Your task to perform on an android device: Go to Yahoo.com Image 0: 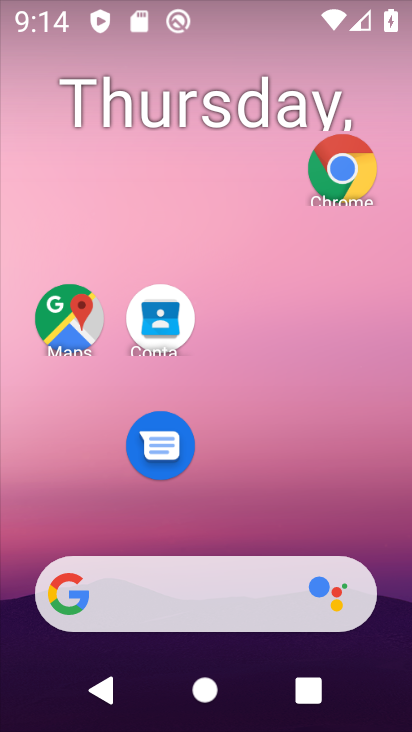
Step 0: drag from (257, 635) to (210, 148)
Your task to perform on an android device: Go to Yahoo.com Image 1: 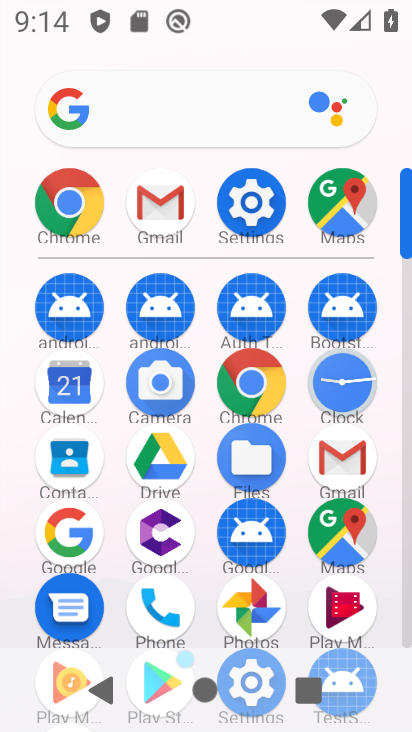
Step 1: click (62, 210)
Your task to perform on an android device: Go to Yahoo.com Image 2: 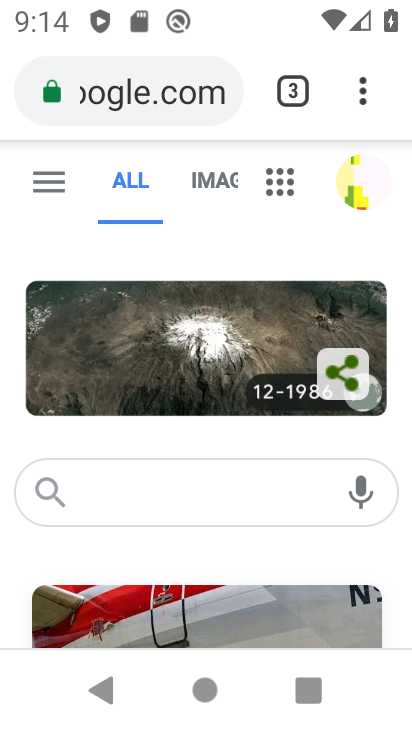
Step 2: click (154, 94)
Your task to perform on an android device: Go to Yahoo.com Image 3: 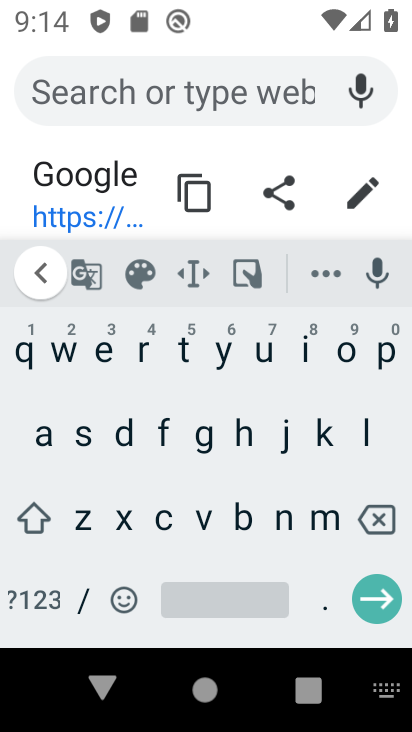
Step 3: click (220, 360)
Your task to perform on an android device: Go to Yahoo.com Image 4: 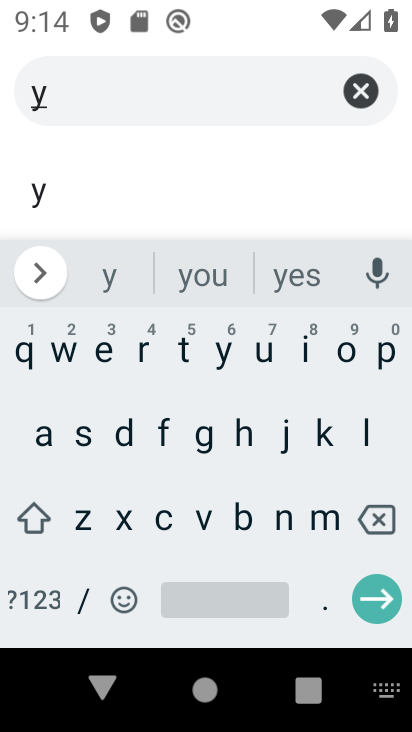
Step 4: click (47, 434)
Your task to perform on an android device: Go to Yahoo.com Image 5: 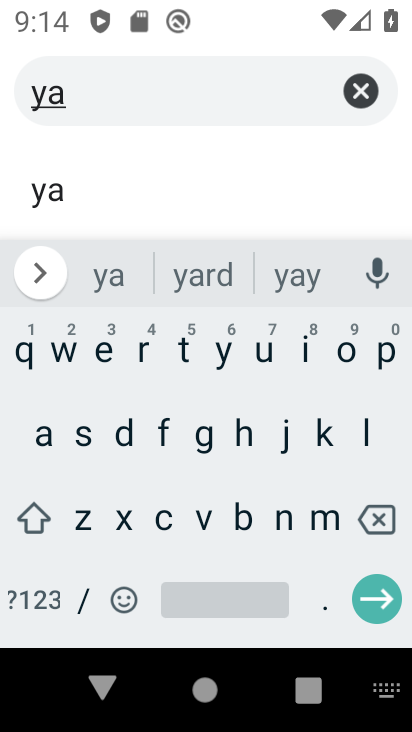
Step 5: click (244, 431)
Your task to perform on an android device: Go to Yahoo.com Image 6: 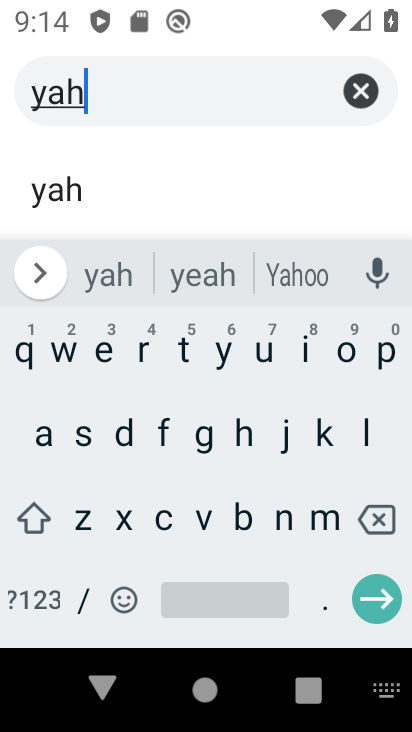
Step 6: click (344, 360)
Your task to perform on an android device: Go to Yahoo.com Image 7: 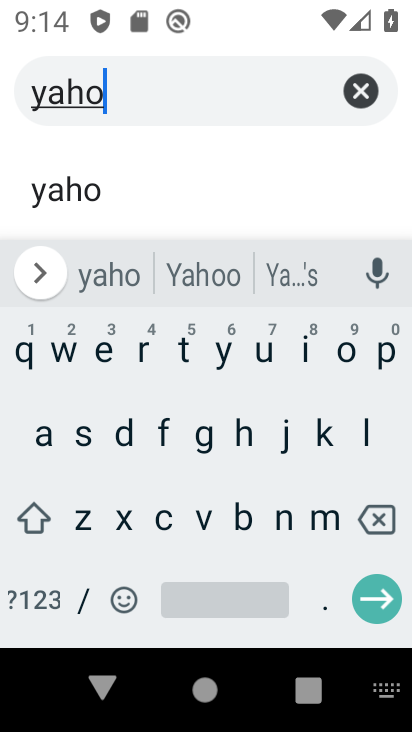
Step 7: click (343, 357)
Your task to perform on an android device: Go to Yahoo.com Image 8: 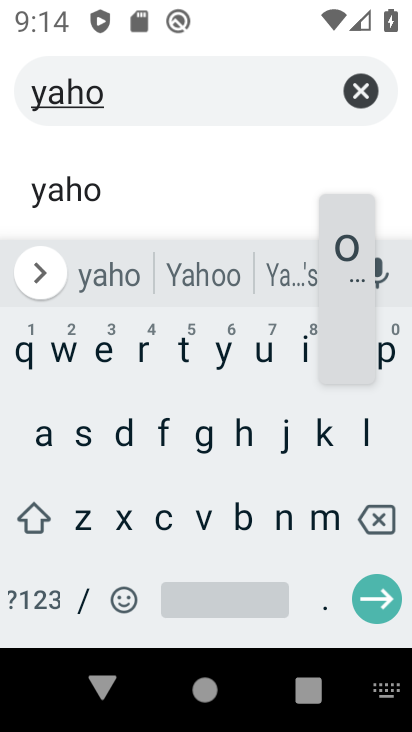
Step 8: click (343, 357)
Your task to perform on an android device: Go to Yahoo.com Image 9: 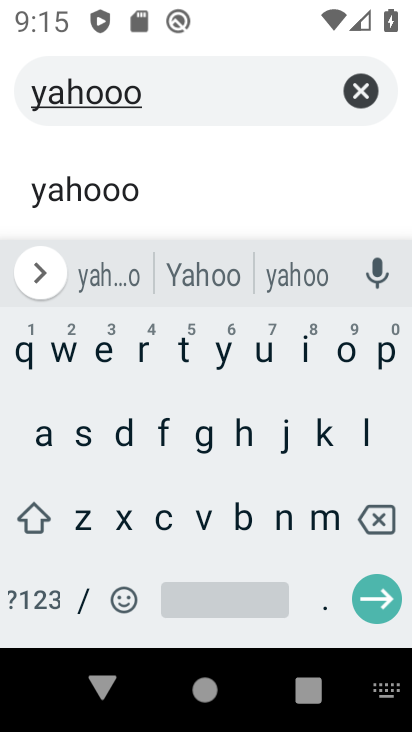
Step 9: click (376, 524)
Your task to perform on an android device: Go to Yahoo.com Image 10: 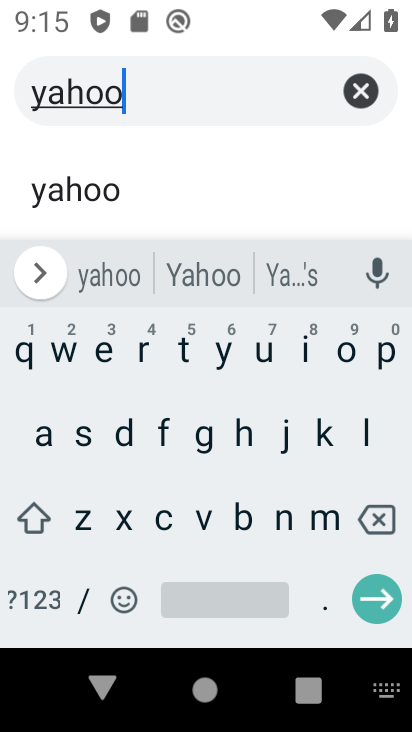
Step 10: click (379, 602)
Your task to perform on an android device: Go to Yahoo.com Image 11: 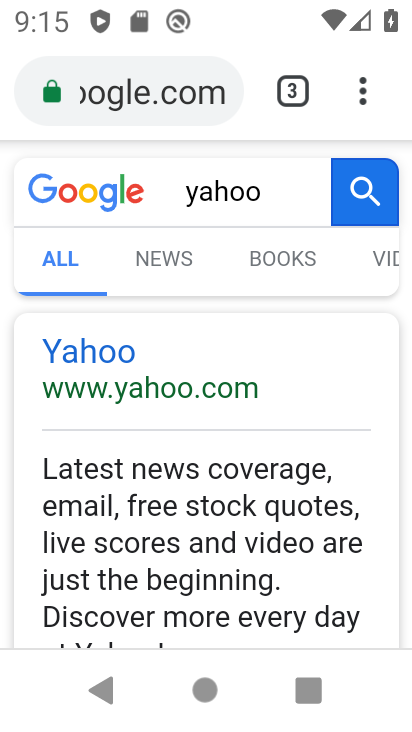
Step 11: click (98, 348)
Your task to perform on an android device: Go to Yahoo.com Image 12: 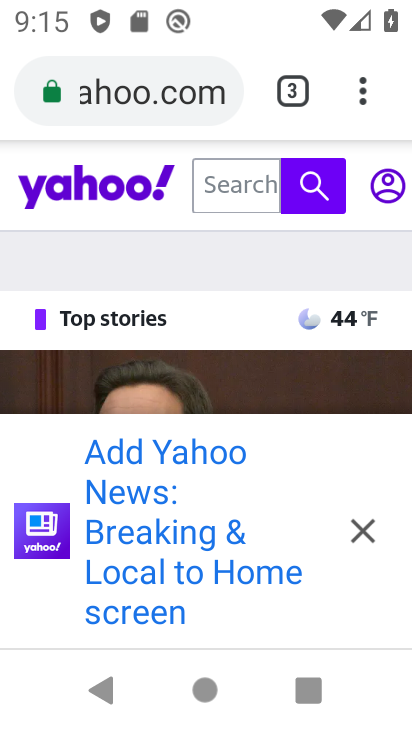
Step 12: click (364, 525)
Your task to perform on an android device: Go to Yahoo.com Image 13: 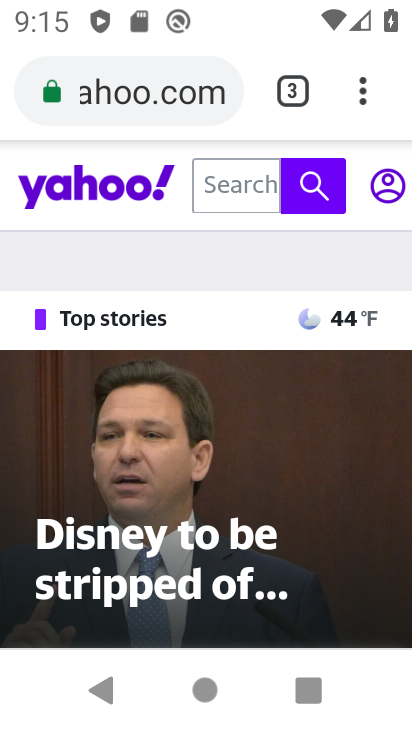
Step 13: task complete